Your task to perform on an android device: Go to accessibility settings Image 0: 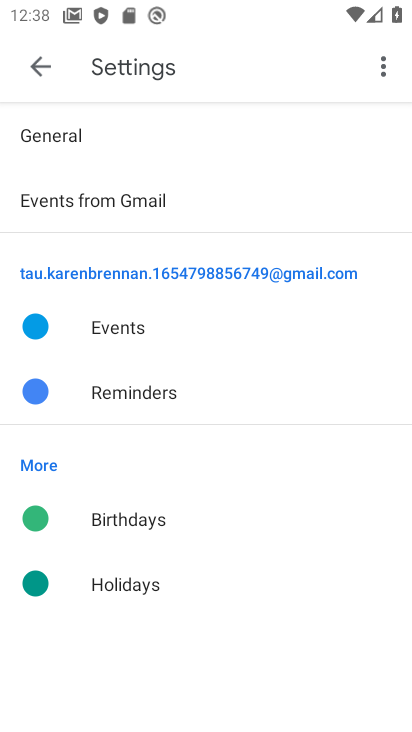
Step 0: press home button
Your task to perform on an android device: Go to accessibility settings Image 1: 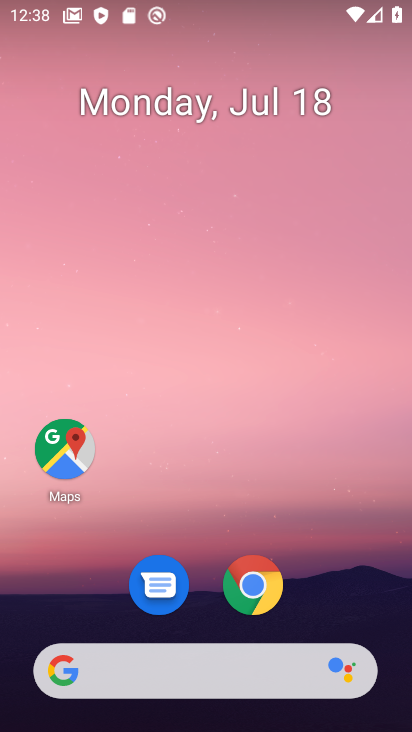
Step 1: drag from (201, 674) to (356, 92)
Your task to perform on an android device: Go to accessibility settings Image 2: 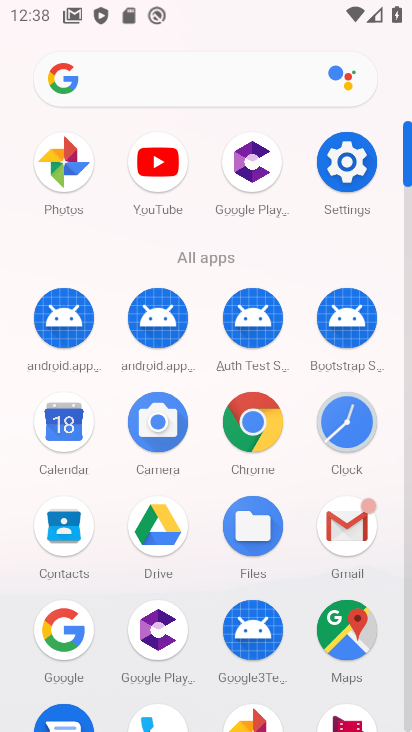
Step 2: click (339, 141)
Your task to perform on an android device: Go to accessibility settings Image 3: 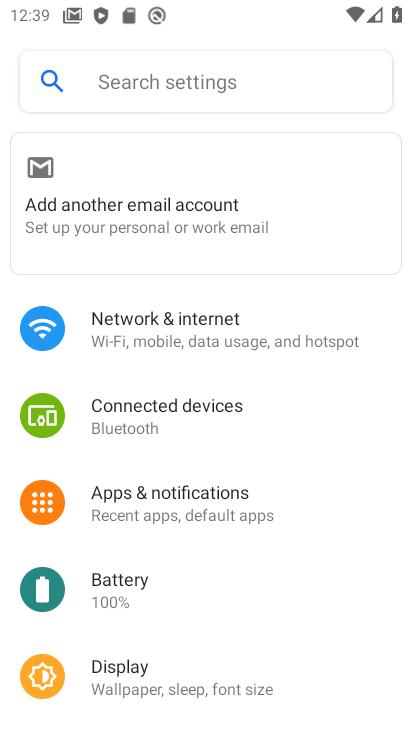
Step 3: drag from (185, 648) to (359, 64)
Your task to perform on an android device: Go to accessibility settings Image 4: 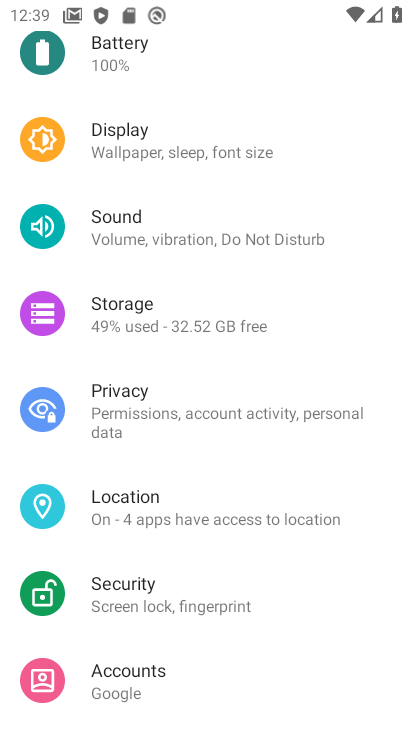
Step 4: drag from (181, 629) to (323, 108)
Your task to perform on an android device: Go to accessibility settings Image 5: 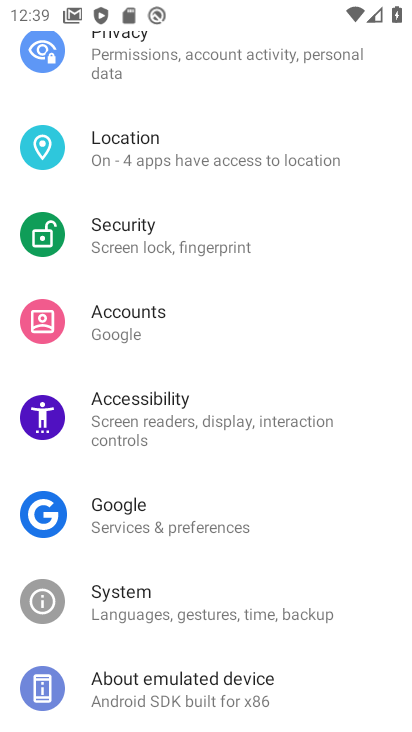
Step 5: click (177, 414)
Your task to perform on an android device: Go to accessibility settings Image 6: 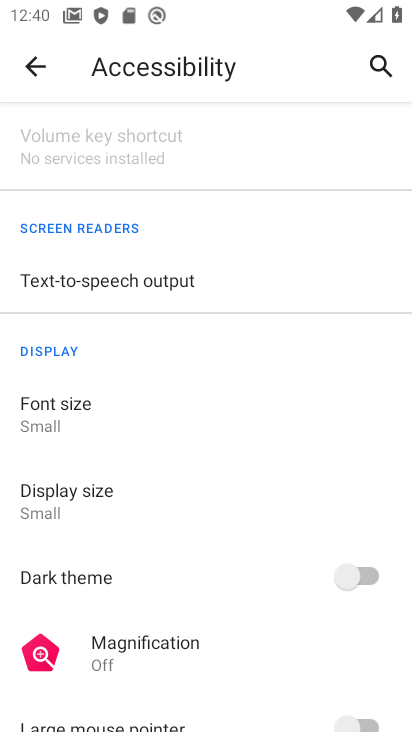
Step 6: task complete